Your task to perform on an android device: turn on showing notifications on the lock screen Image 0: 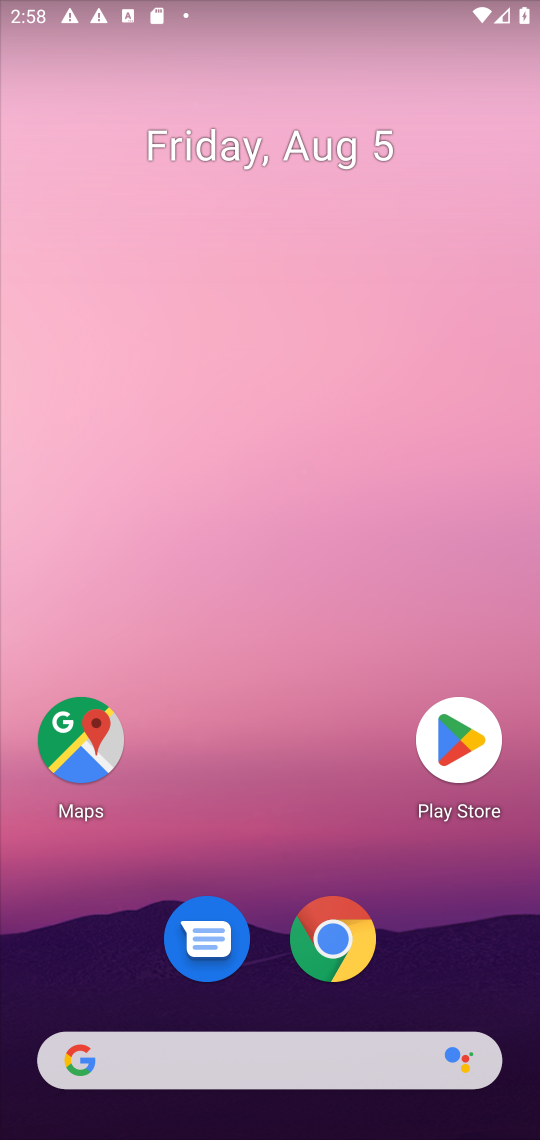
Step 0: drag from (278, 946) to (123, 120)
Your task to perform on an android device: turn on showing notifications on the lock screen Image 1: 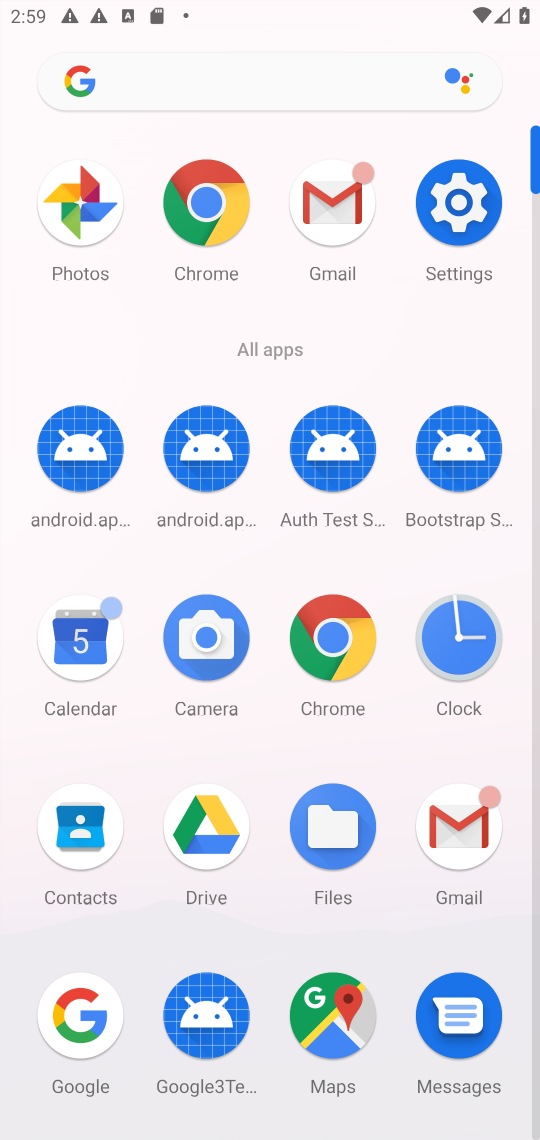
Step 1: click (451, 226)
Your task to perform on an android device: turn on showing notifications on the lock screen Image 2: 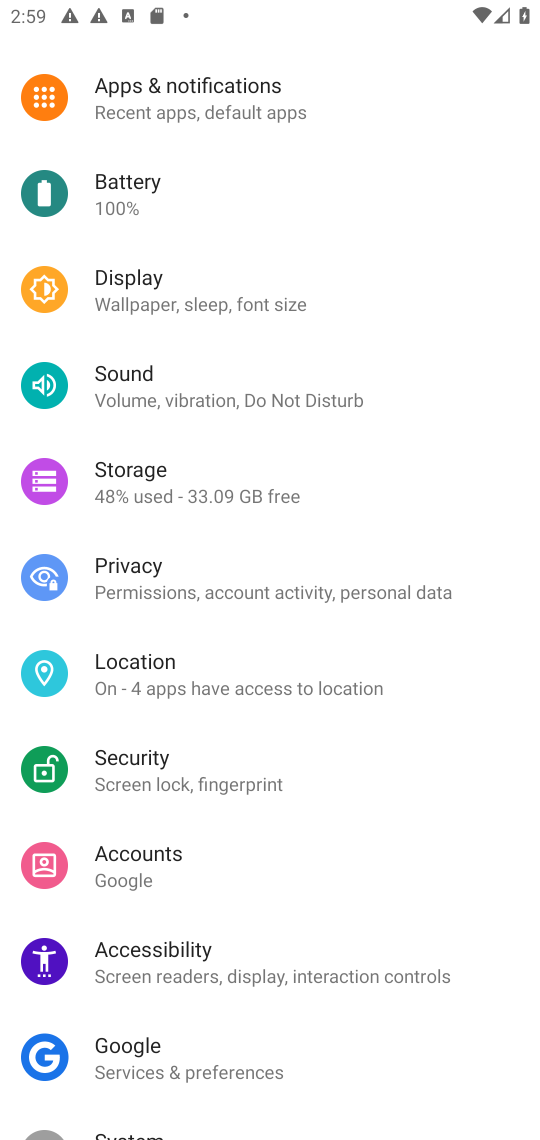
Step 2: click (187, 123)
Your task to perform on an android device: turn on showing notifications on the lock screen Image 3: 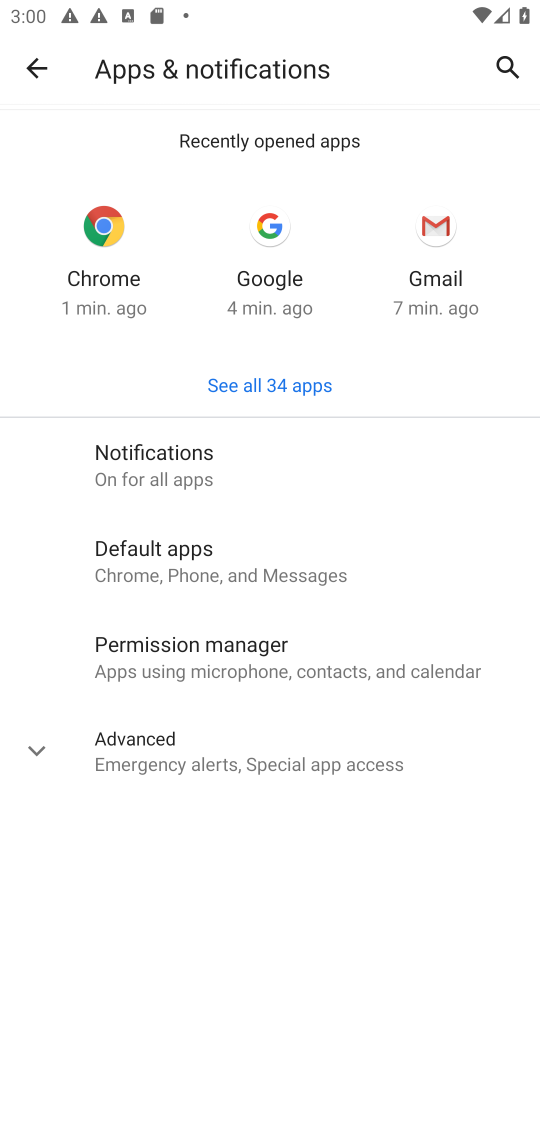
Step 3: click (175, 462)
Your task to perform on an android device: turn on showing notifications on the lock screen Image 4: 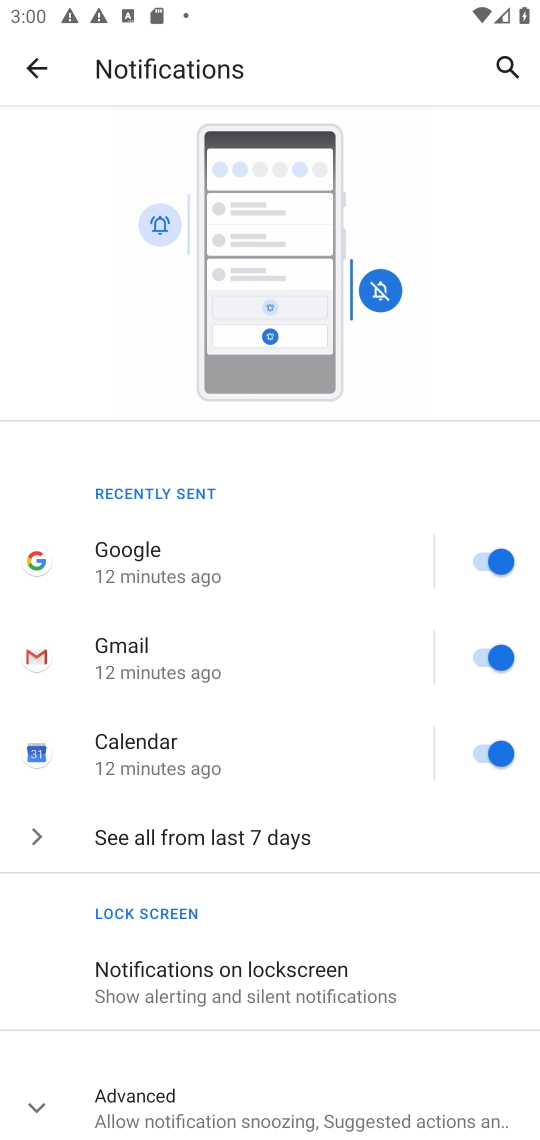
Step 4: click (173, 1020)
Your task to perform on an android device: turn on showing notifications on the lock screen Image 5: 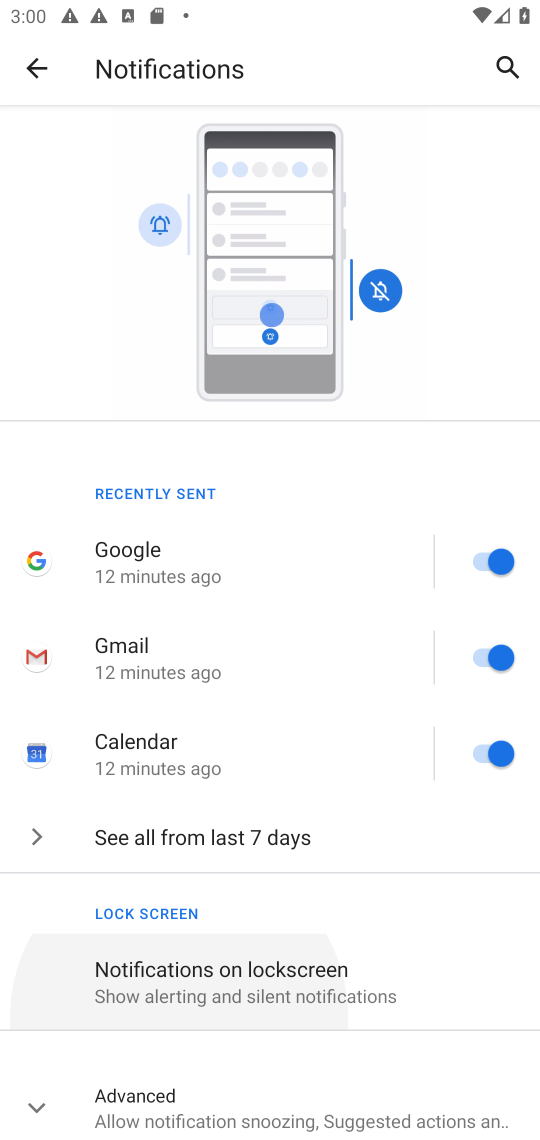
Step 5: click (171, 990)
Your task to perform on an android device: turn on showing notifications on the lock screen Image 6: 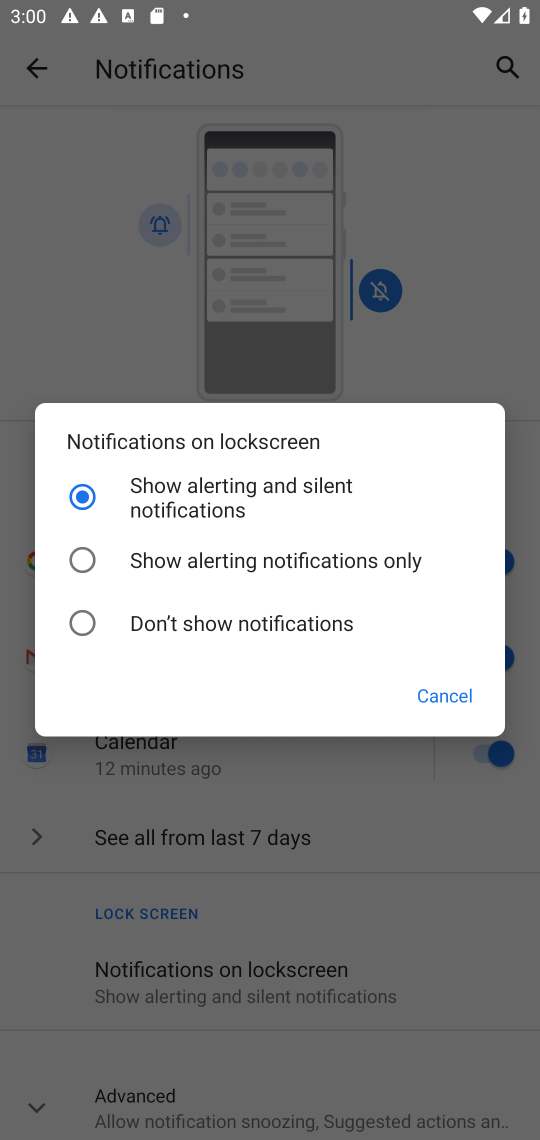
Step 6: click (183, 563)
Your task to perform on an android device: turn on showing notifications on the lock screen Image 7: 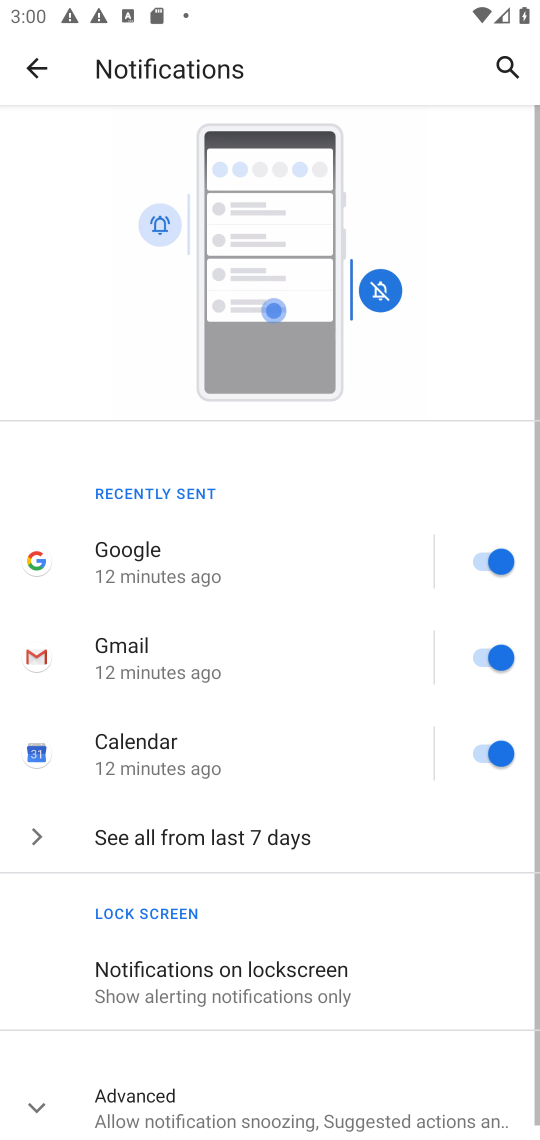
Step 7: task complete